Your task to perform on an android device: Search for "logitech g pro" on newegg, select the first entry, add it to the cart, then select checkout. Image 0: 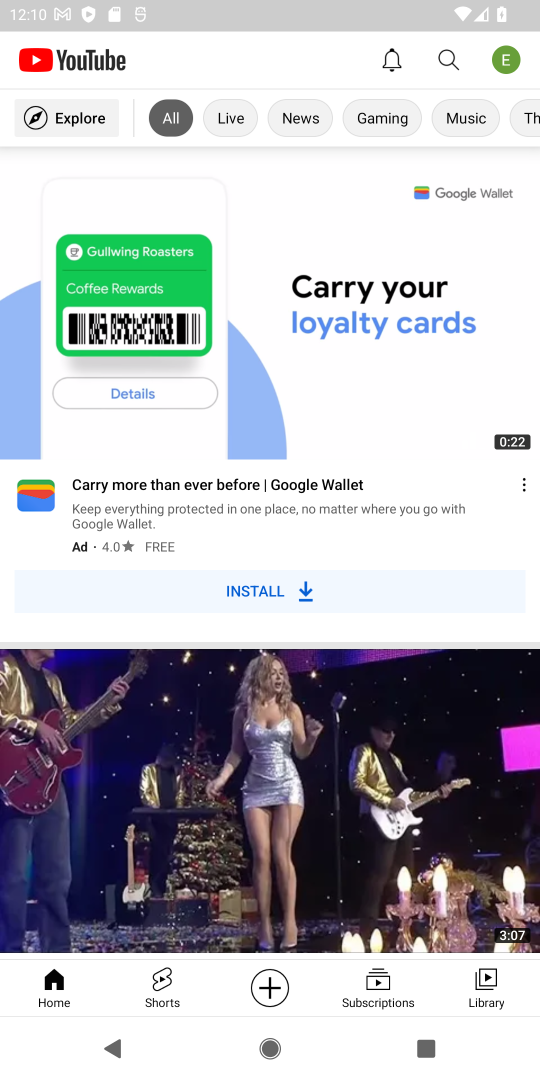
Step 0: press home button
Your task to perform on an android device: Search for "logitech g pro" on newegg, select the first entry, add it to the cart, then select checkout. Image 1: 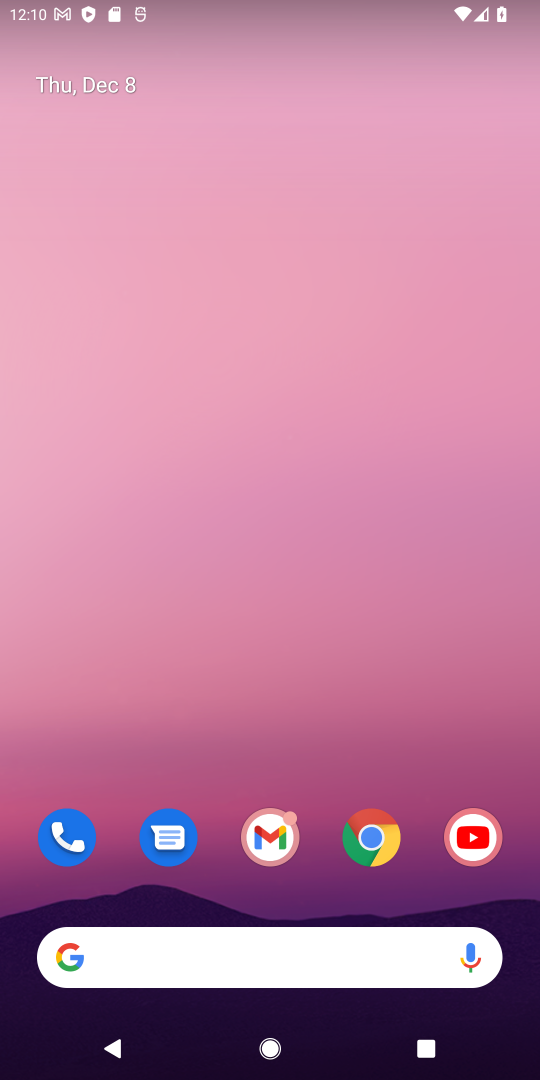
Step 1: click (366, 842)
Your task to perform on an android device: Search for "logitech g pro" on newegg, select the first entry, add it to the cart, then select checkout. Image 2: 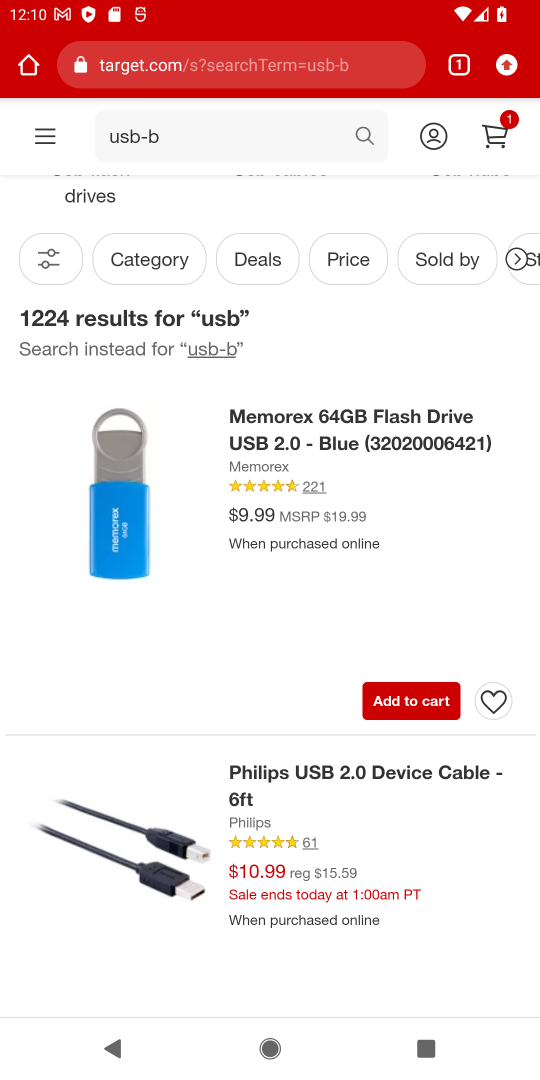
Step 2: click (238, 74)
Your task to perform on an android device: Search for "logitech g pro" on newegg, select the first entry, add it to the cart, then select checkout. Image 3: 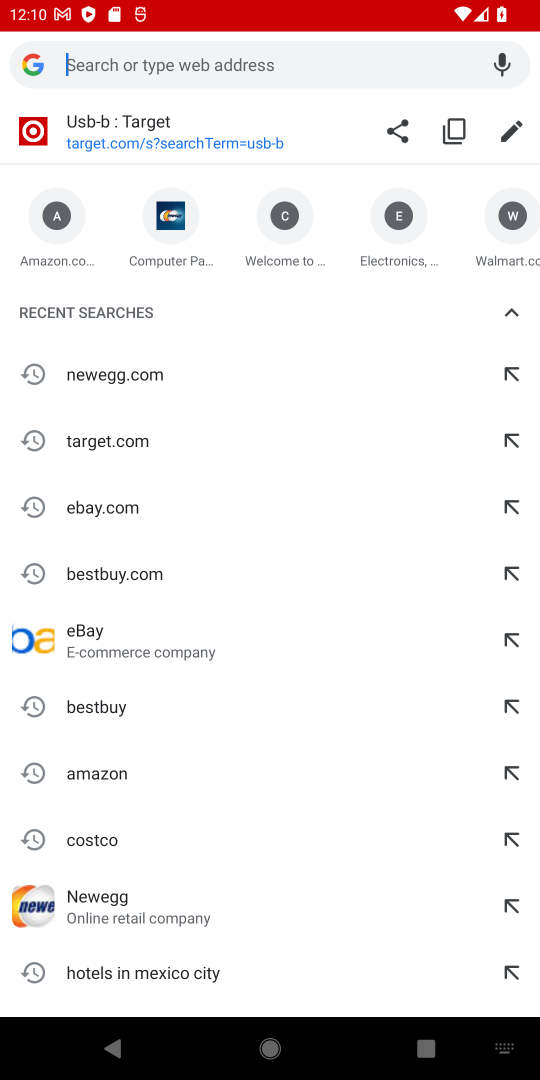
Step 3: type "newegg"
Your task to perform on an android device: Search for "logitech g pro" on newegg, select the first entry, add it to the cart, then select checkout. Image 4: 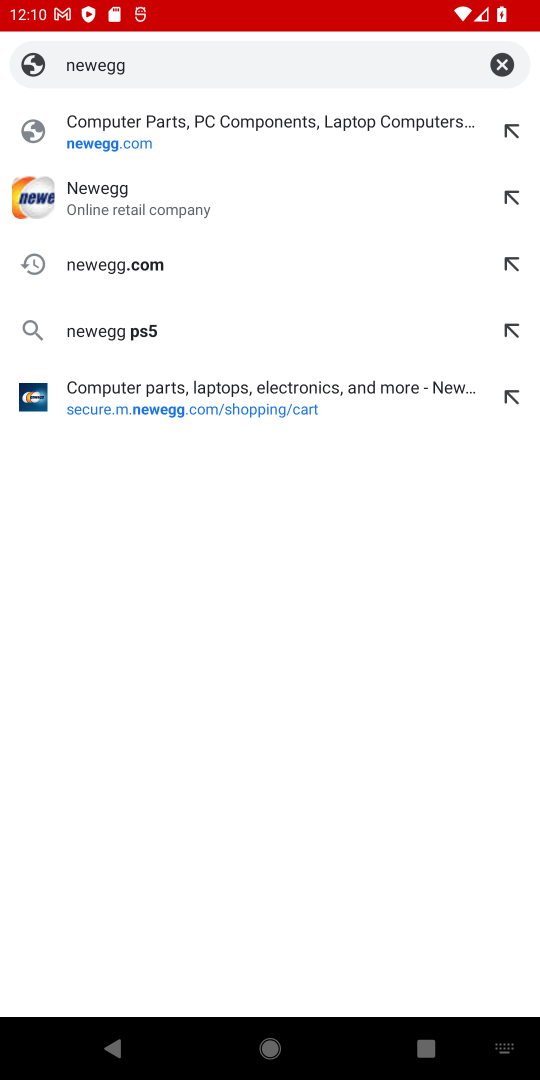
Step 4: click (147, 145)
Your task to perform on an android device: Search for "logitech g pro" on newegg, select the first entry, add it to the cart, then select checkout. Image 5: 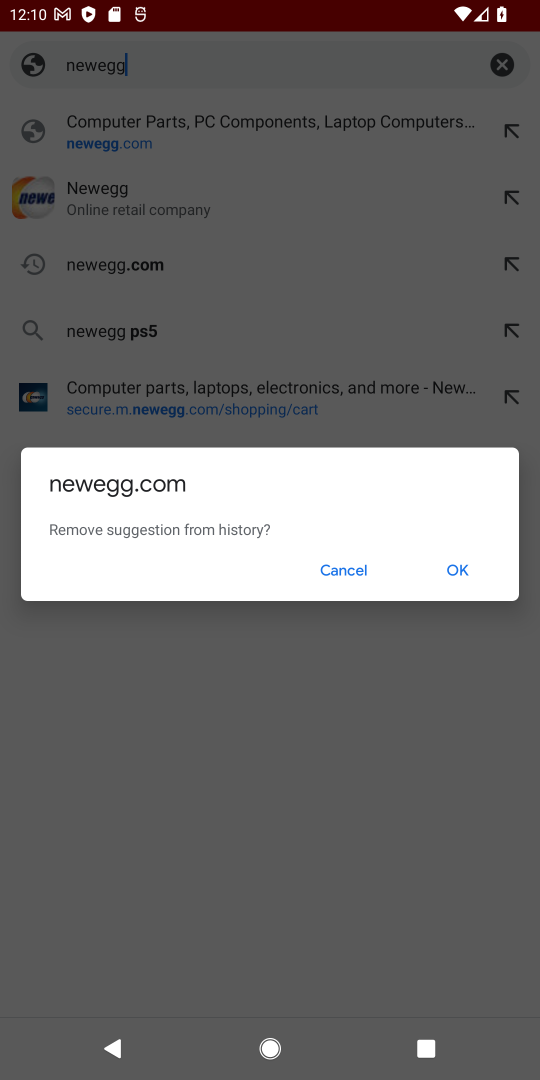
Step 5: click (448, 564)
Your task to perform on an android device: Search for "logitech g pro" on newegg, select the first entry, add it to the cart, then select checkout. Image 6: 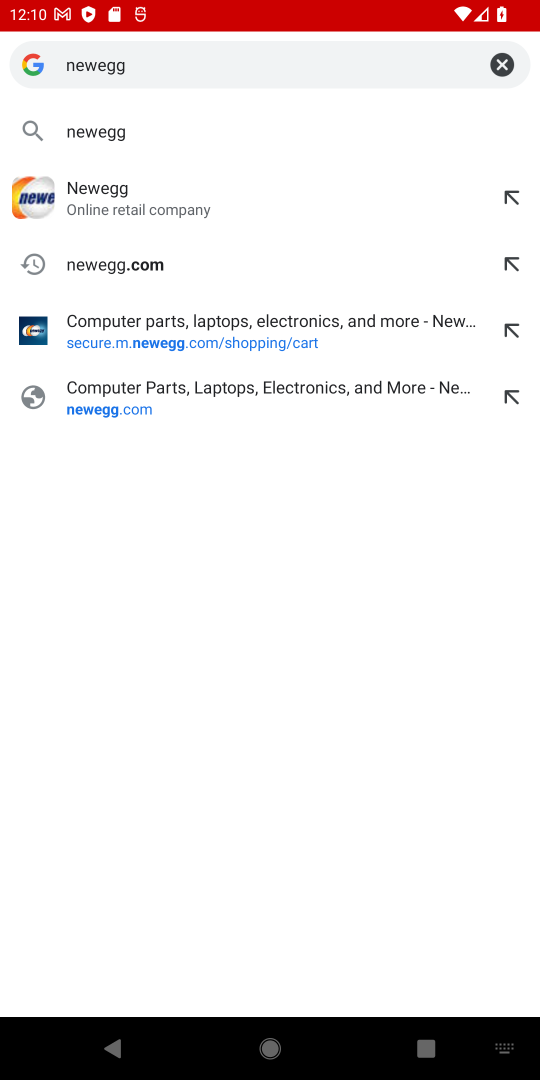
Step 6: click (133, 376)
Your task to perform on an android device: Search for "logitech g pro" on newegg, select the first entry, add it to the cart, then select checkout. Image 7: 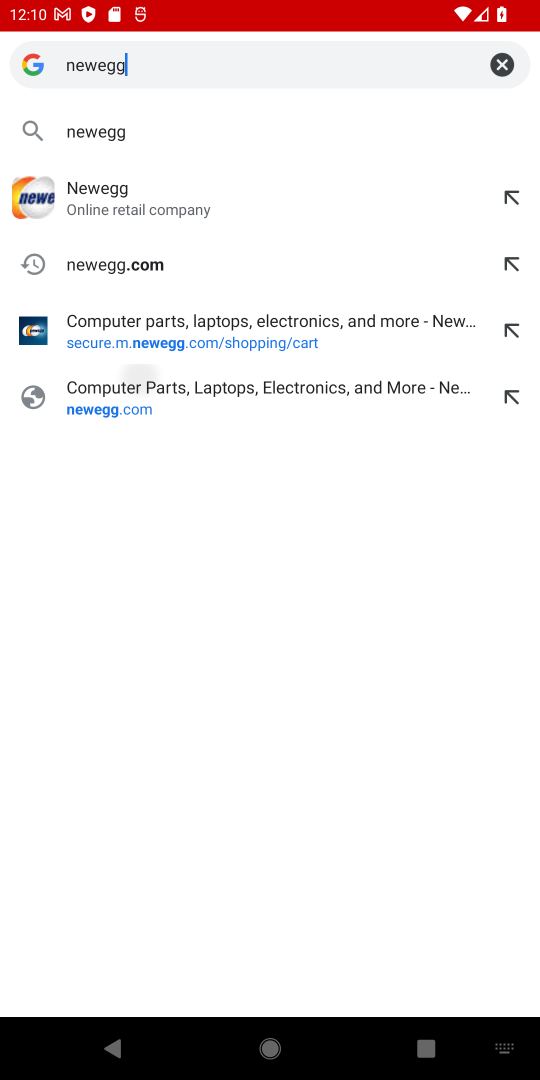
Step 7: click (130, 409)
Your task to perform on an android device: Search for "logitech g pro" on newegg, select the first entry, add it to the cart, then select checkout. Image 8: 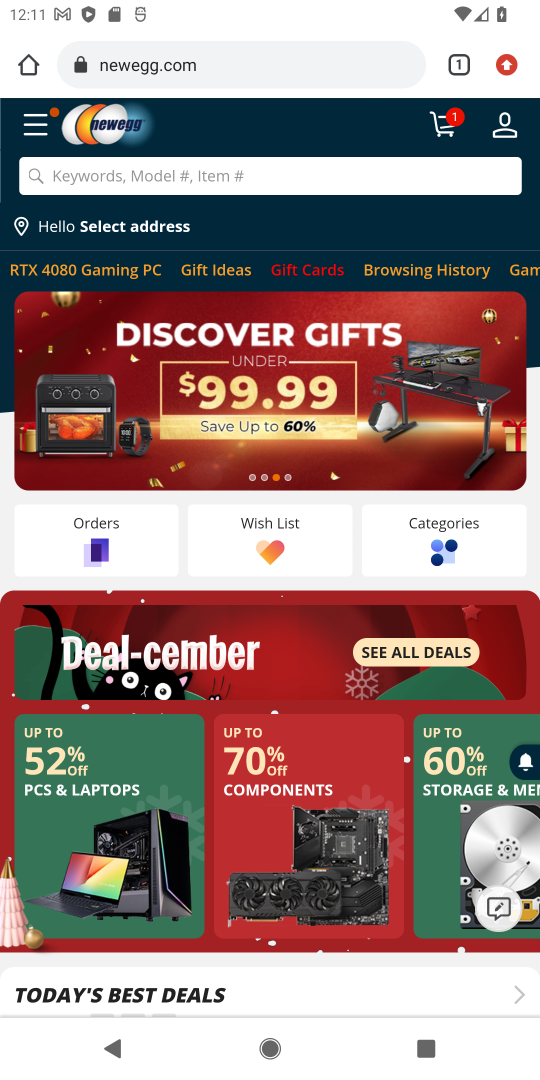
Step 8: click (251, 187)
Your task to perform on an android device: Search for "logitech g pro" on newegg, select the first entry, add it to the cart, then select checkout. Image 9: 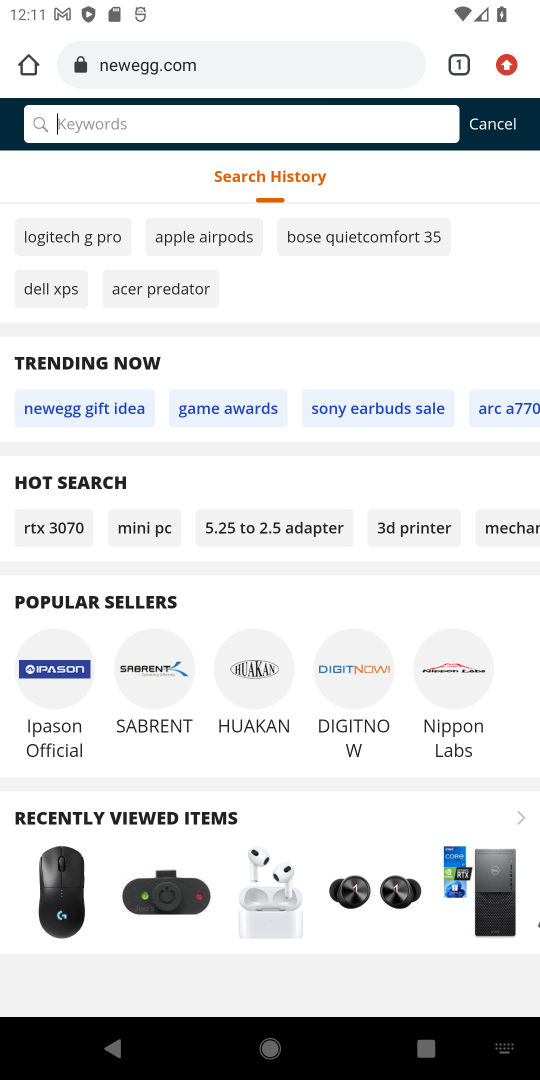
Step 9: type "logitech g pro"
Your task to perform on an android device: Search for "logitech g pro" on newegg, select the first entry, add it to the cart, then select checkout. Image 10: 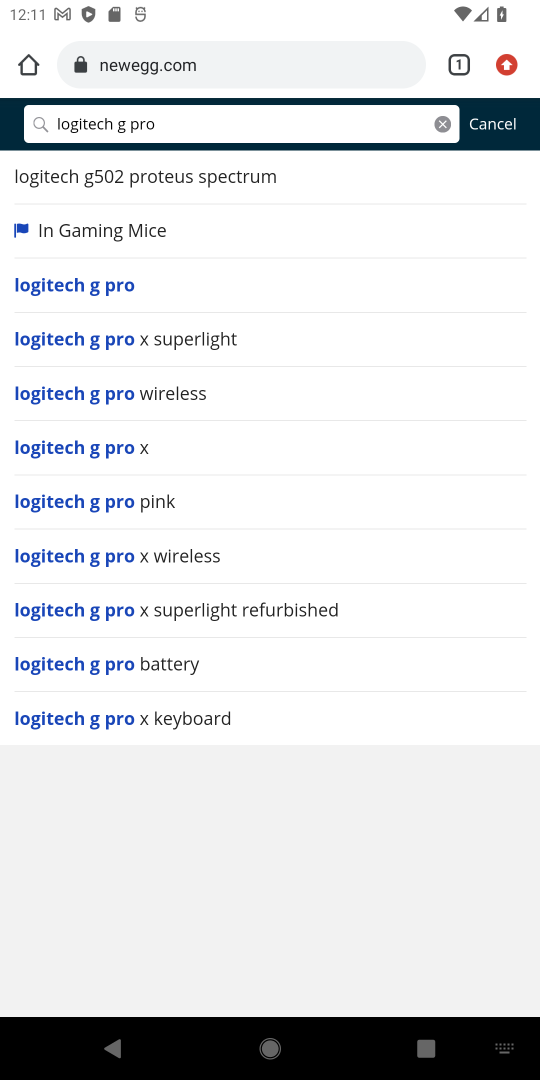
Step 10: press enter
Your task to perform on an android device: Search for "logitech g pro" on newegg, select the first entry, add it to the cart, then select checkout. Image 11: 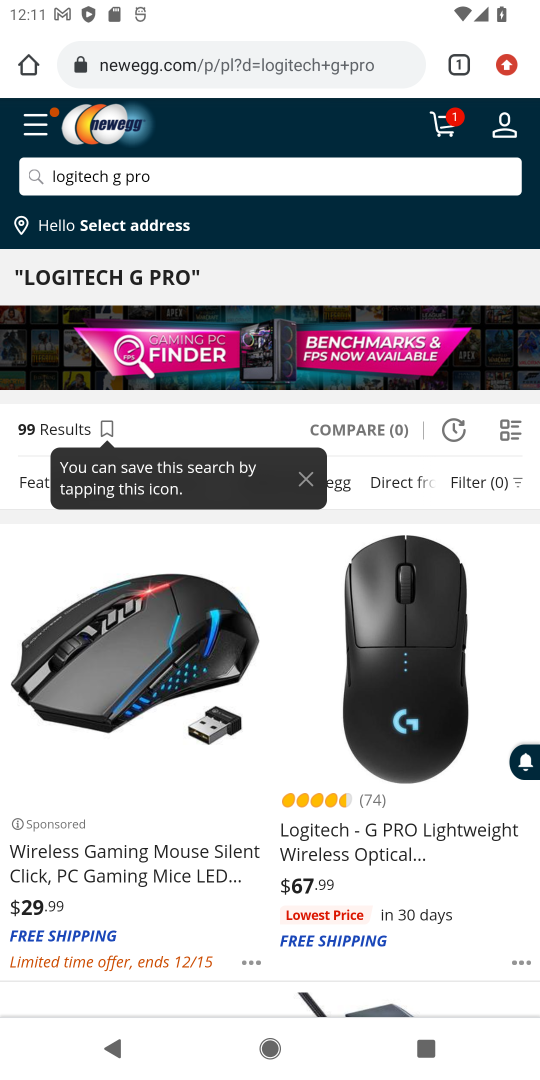
Step 11: click (383, 763)
Your task to perform on an android device: Search for "logitech g pro" on newegg, select the first entry, add it to the cart, then select checkout. Image 12: 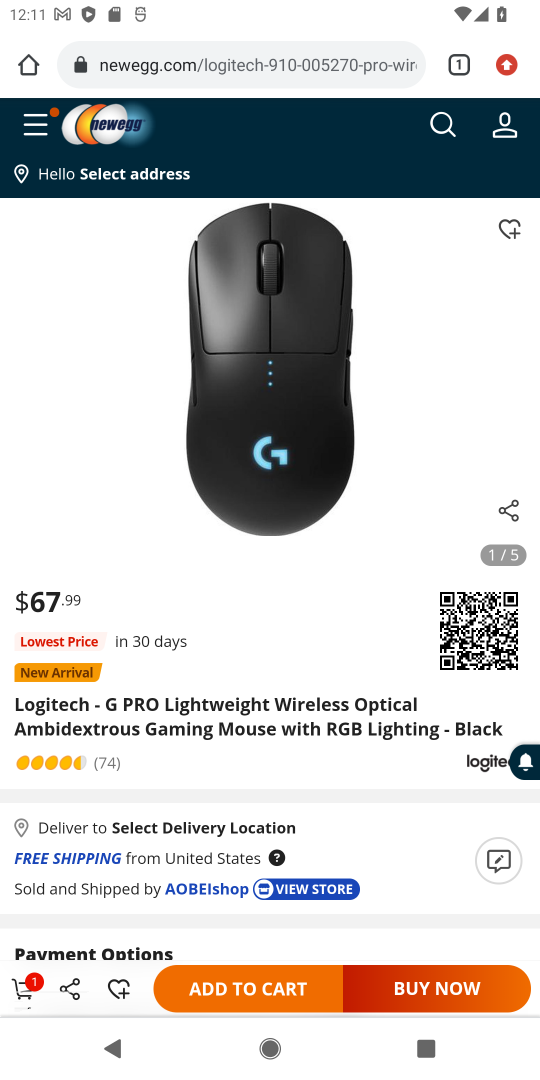
Step 12: click (236, 989)
Your task to perform on an android device: Search for "logitech g pro" on newegg, select the first entry, add it to the cart, then select checkout. Image 13: 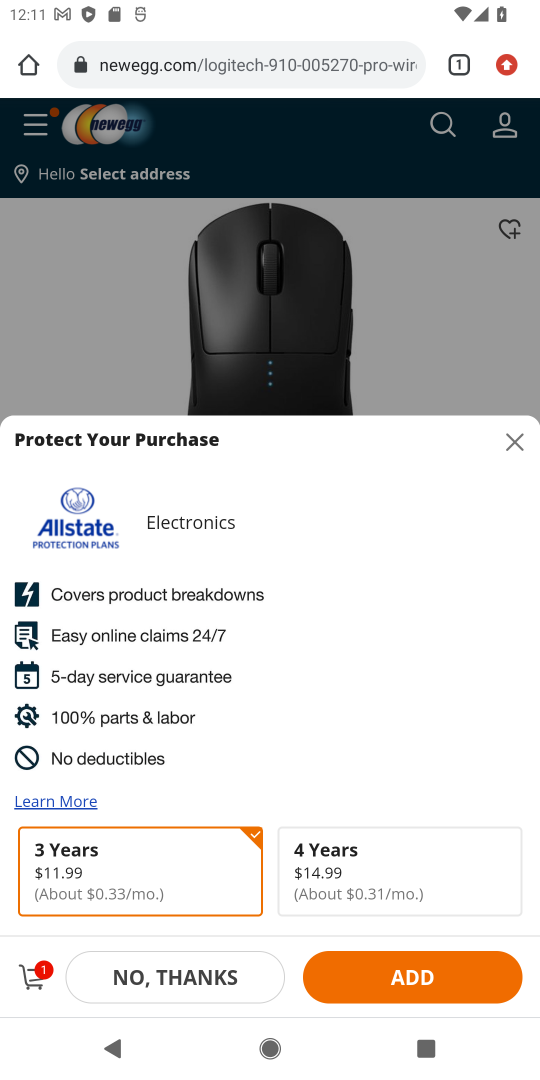
Step 13: click (395, 979)
Your task to perform on an android device: Search for "logitech g pro" on newegg, select the first entry, add it to the cart, then select checkout. Image 14: 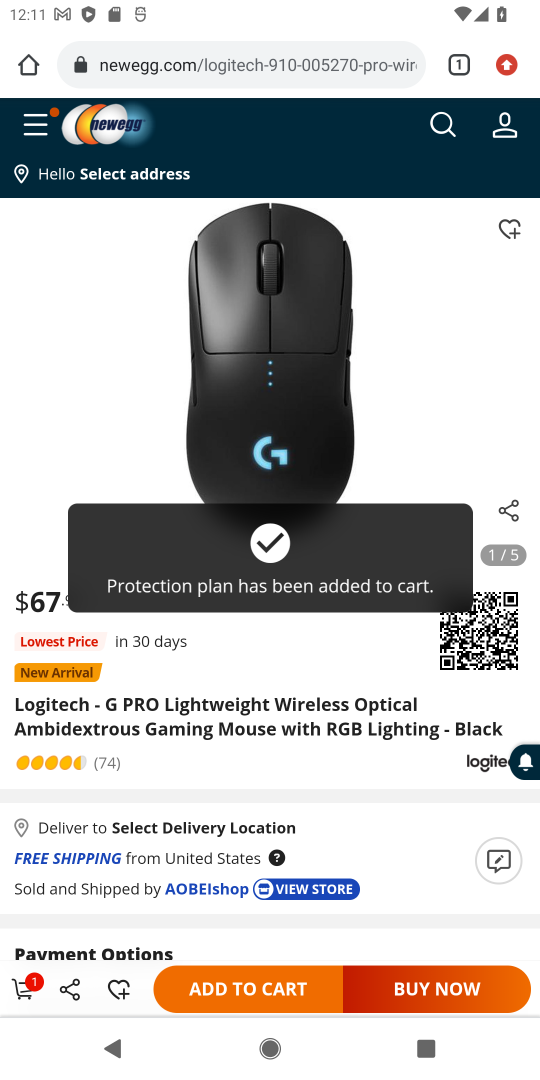
Step 14: click (25, 989)
Your task to perform on an android device: Search for "logitech g pro" on newegg, select the first entry, add it to the cart, then select checkout. Image 15: 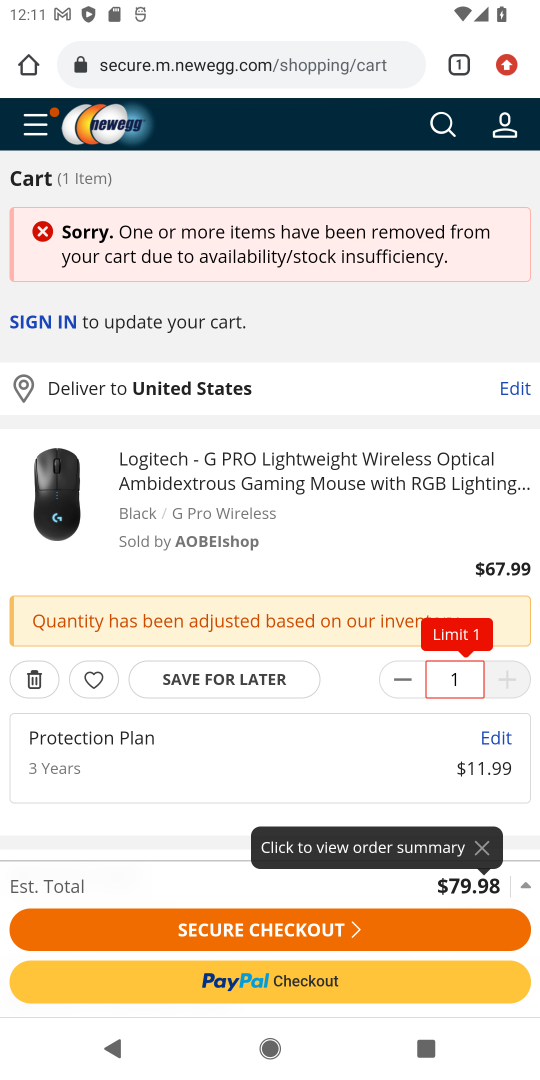
Step 15: click (178, 932)
Your task to perform on an android device: Search for "logitech g pro" on newegg, select the first entry, add it to the cart, then select checkout. Image 16: 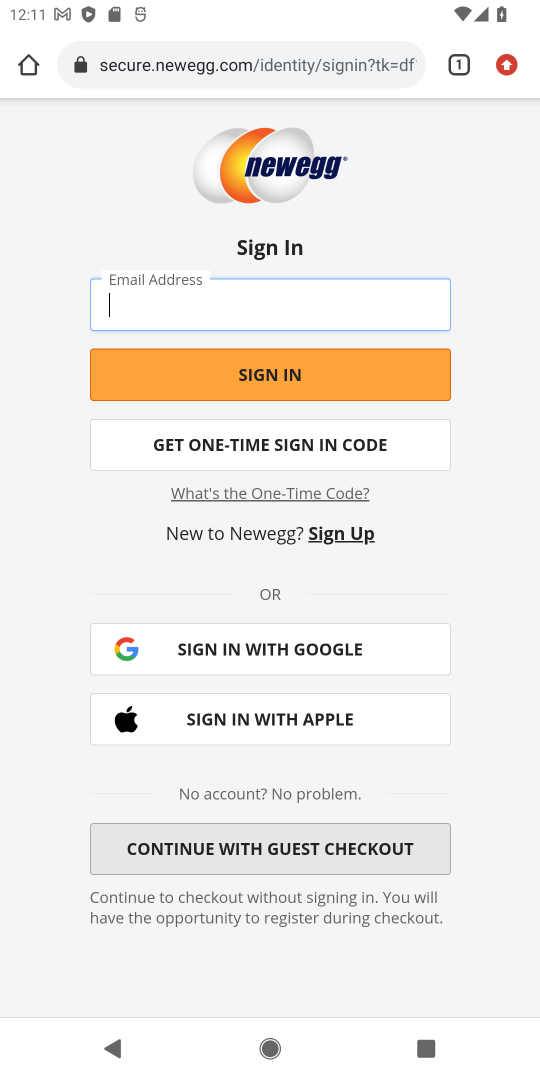
Step 16: task complete